Your task to perform on an android device: Open settings Image 0: 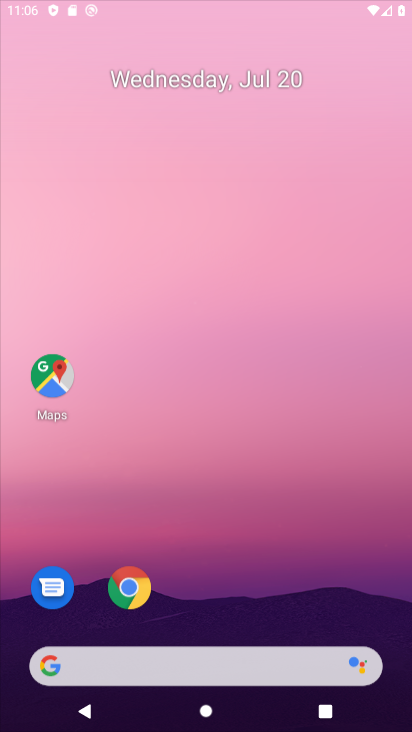
Step 0: press home button
Your task to perform on an android device: Open settings Image 1: 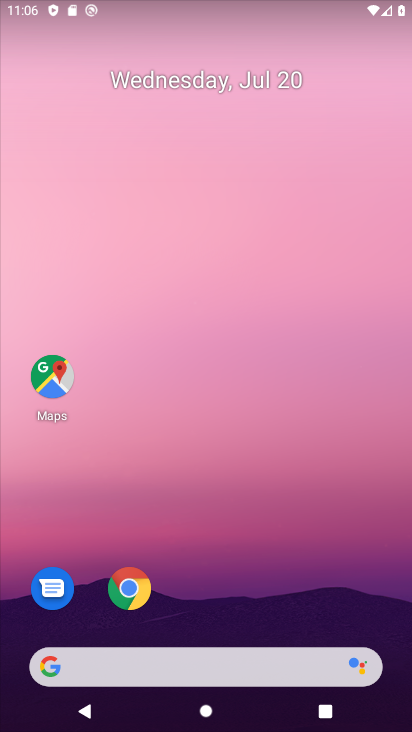
Step 1: drag from (291, 511) to (307, 158)
Your task to perform on an android device: Open settings Image 2: 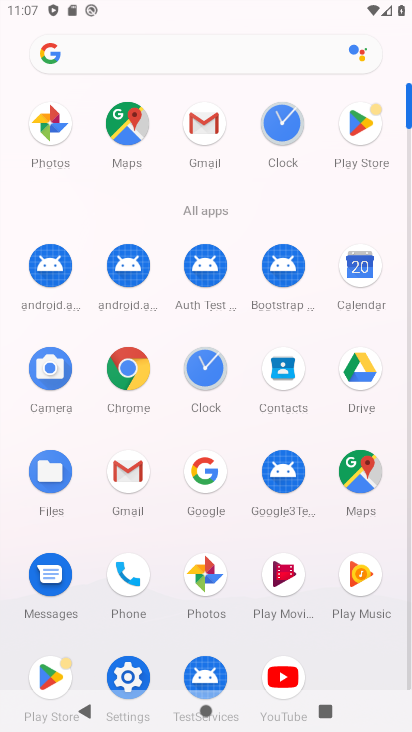
Step 2: click (124, 663)
Your task to perform on an android device: Open settings Image 3: 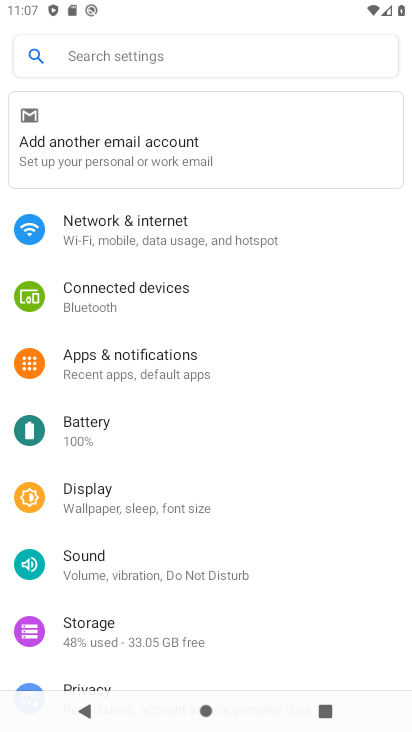
Step 3: task complete